Your task to perform on an android device: turn notification dots on Image 0: 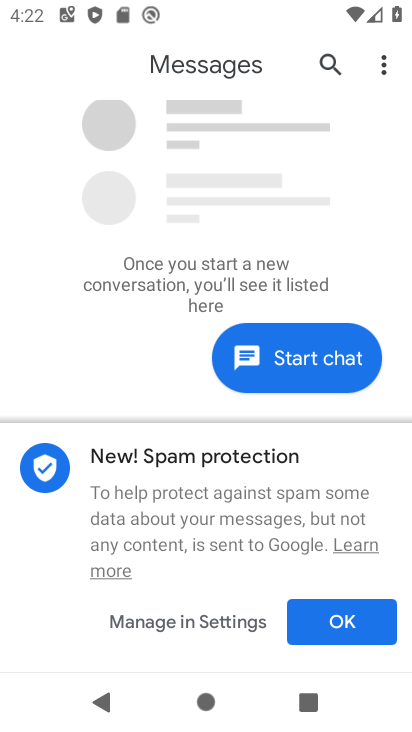
Step 0: press back button
Your task to perform on an android device: turn notification dots on Image 1: 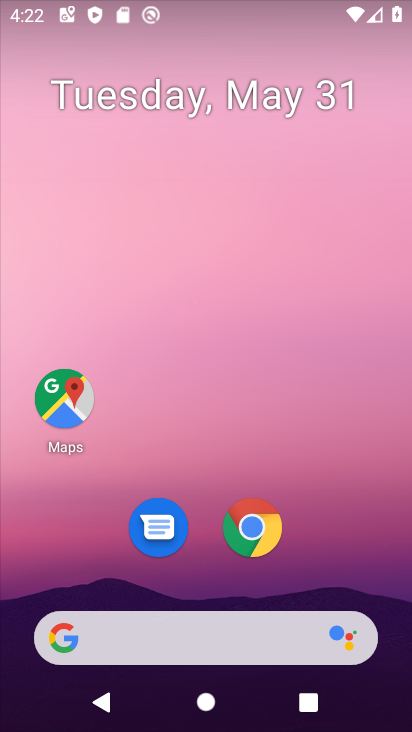
Step 1: drag from (335, 503) to (171, 23)
Your task to perform on an android device: turn notification dots on Image 2: 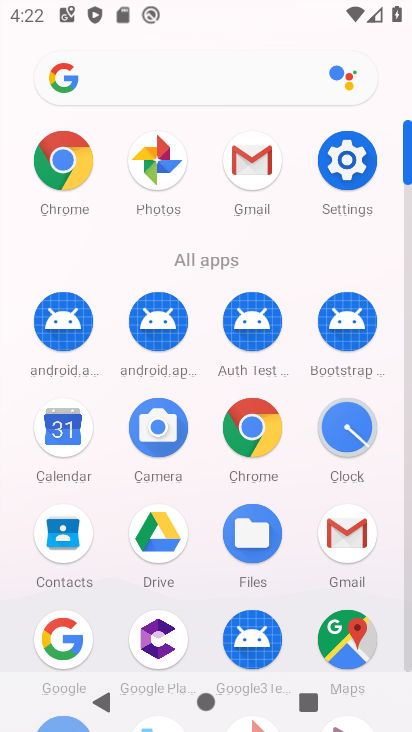
Step 2: drag from (12, 587) to (14, 221)
Your task to perform on an android device: turn notification dots on Image 3: 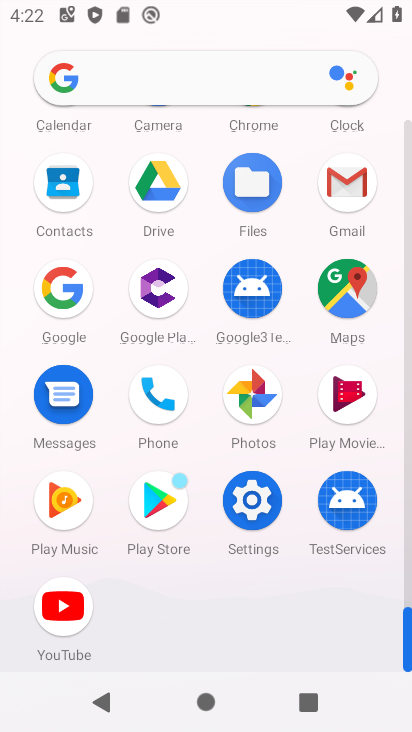
Step 3: click (251, 497)
Your task to perform on an android device: turn notification dots on Image 4: 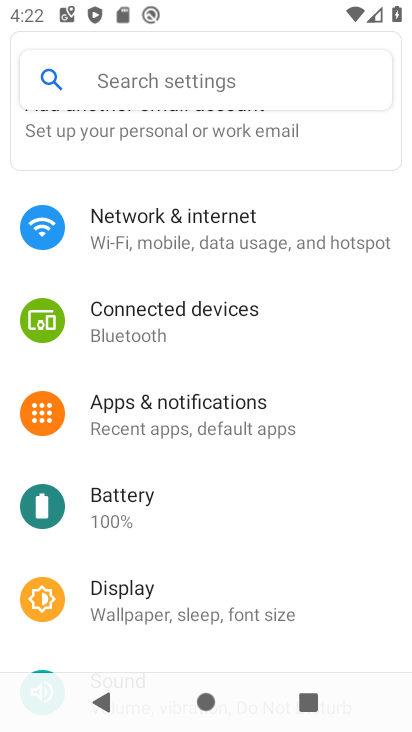
Step 4: drag from (303, 574) to (298, 272)
Your task to perform on an android device: turn notification dots on Image 5: 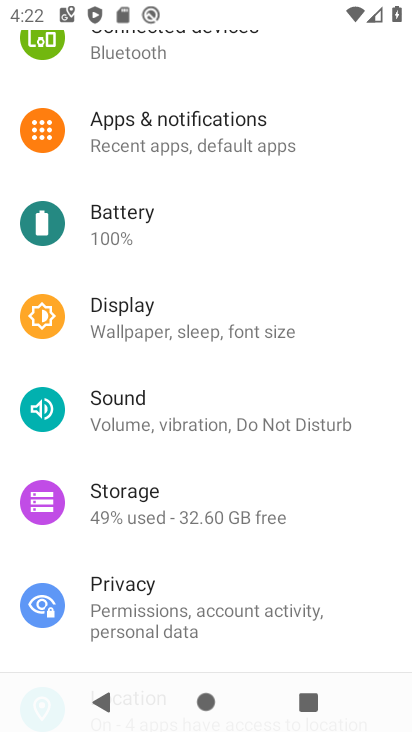
Step 5: click (204, 120)
Your task to perform on an android device: turn notification dots on Image 6: 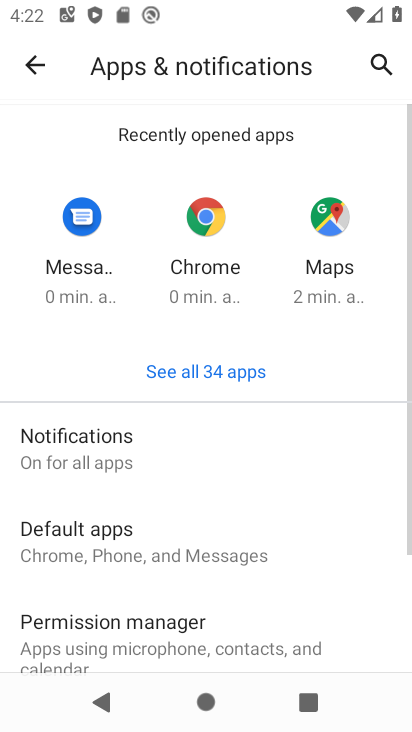
Step 6: click (143, 447)
Your task to perform on an android device: turn notification dots on Image 7: 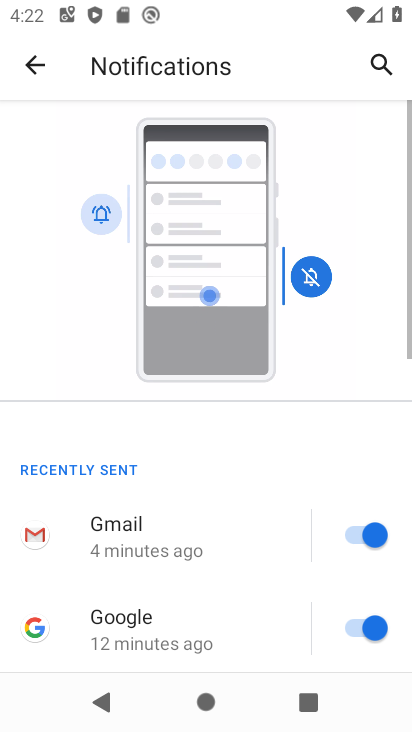
Step 7: drag from (195, 592) to (254, 125)
Your task to perform on an android device: turn notification dots on Image 8: 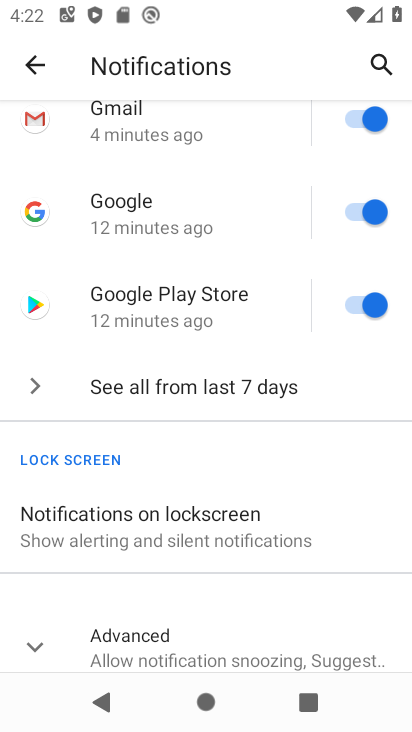
Step 8: drag from (186, 562) to (192, 204)
Your task to perform on an android device: turn notification dots on Image 9: 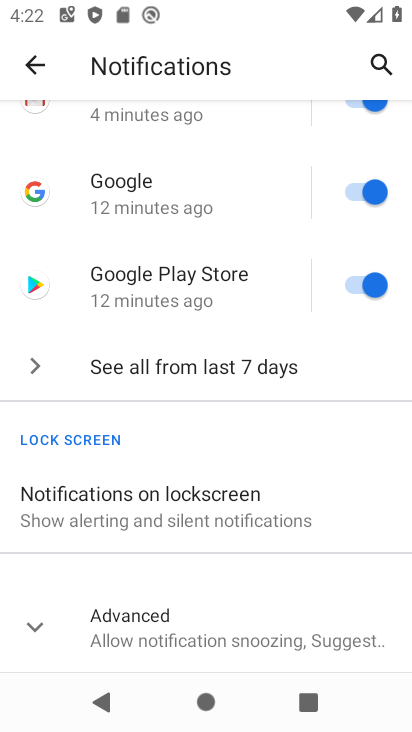
Step 9: click (130, 611)
Your task to perform on an android device: turn notification dots on Image 10: 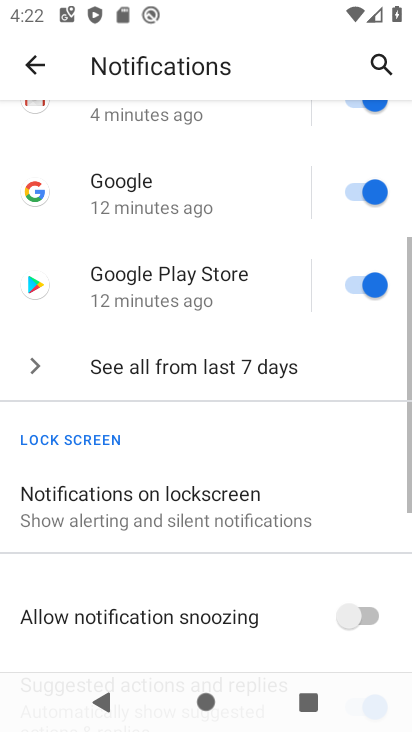
Step 10: task complete